Your task to perform on an android device: toggle translation in the chrome app Image 0: 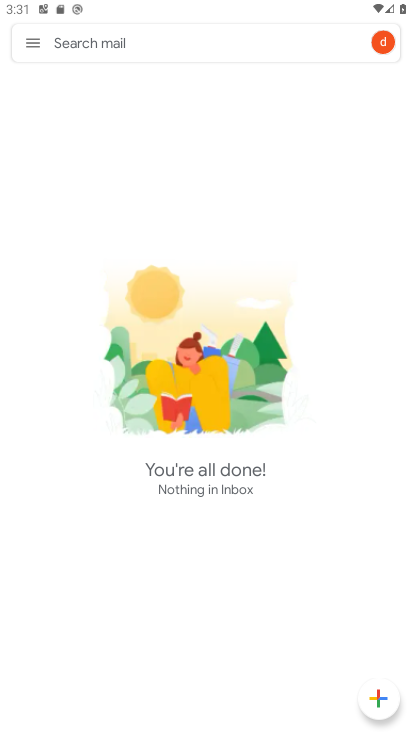
Step 0: press home button
Your task to perform on an android device: toggle translation in the chrome app Image 1: 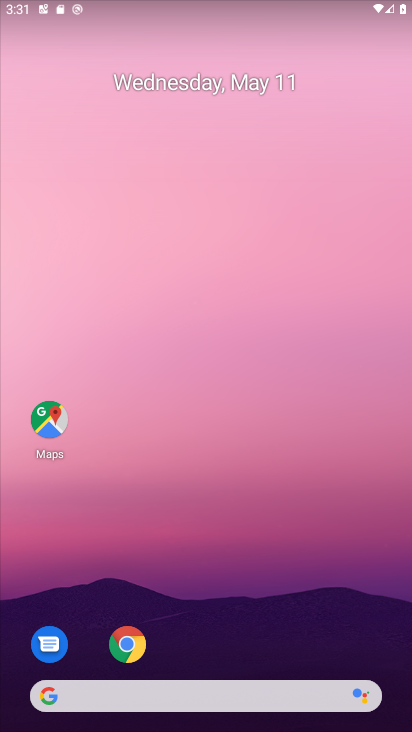
Step 1: click (126, 649)
Your task to perform on an android device: toggle translation in the chrome app Image 2: 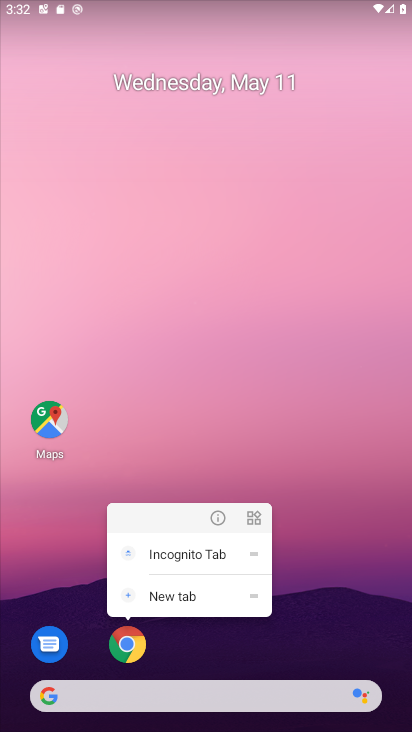
Step 2: click (126, 640)
Your task to perform on an android device: toggle translation in the chrome app Image 3: 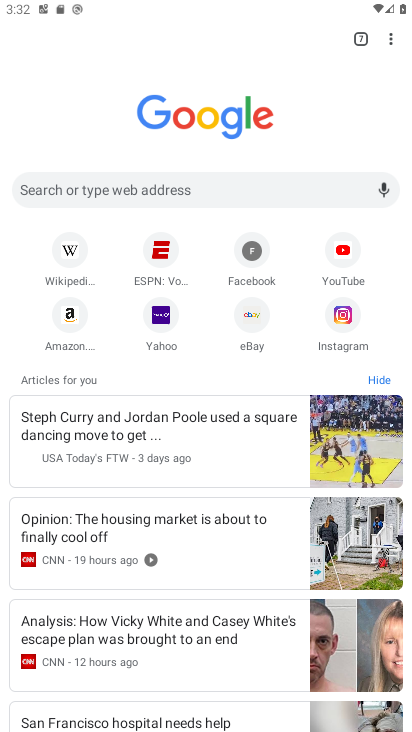
Step 3: click (391, 44)
Your task to perform on an android device: toggle translation in the chrome app Image 4: 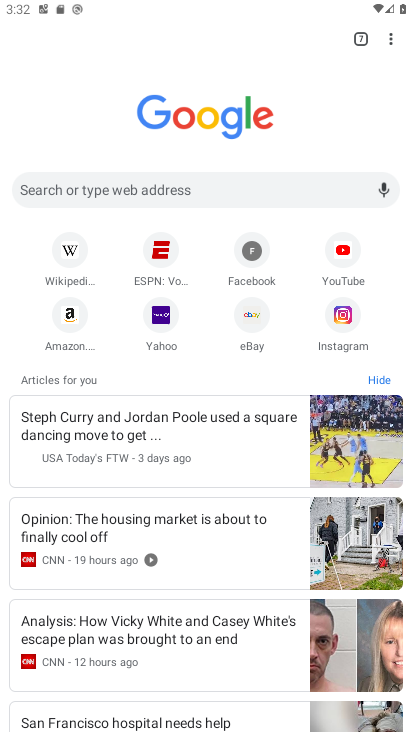
Step 4: drag from (393, 41) to (273, 328)
Your task to perform on an android device: toggle translation in the chrome app Image 5: 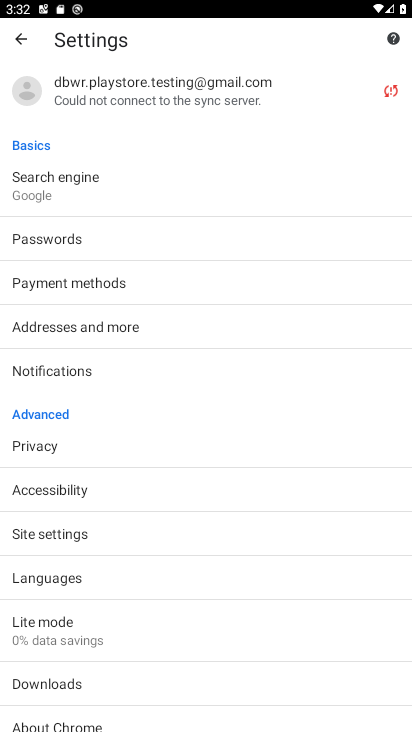
Step 5: click (37, 577)
Your task to perform on an android device: toggle translation in the chrome app Image 6: 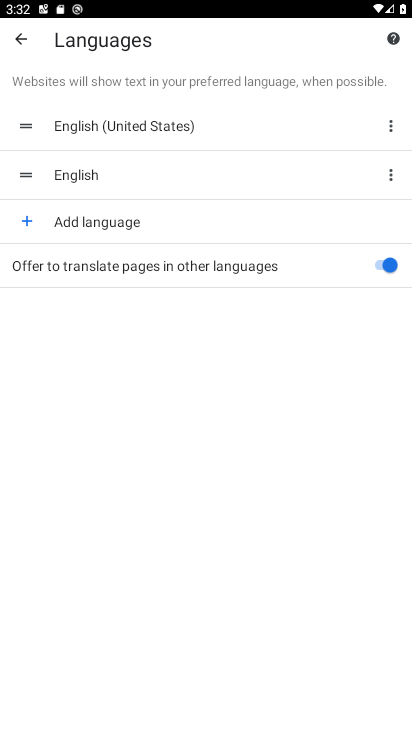
Step 6: click (385, 250)
Your task to perform on an android device: toggle translation in the chrome app Image 7: 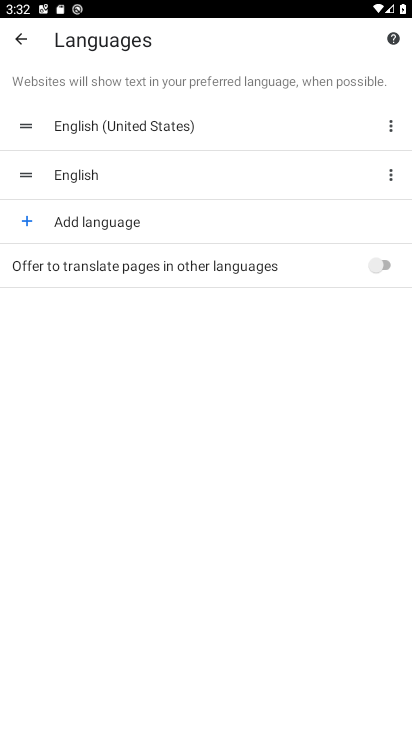
Step 7: task complete